Your task to perform on an android device: Open Yahoo.com Image 0: 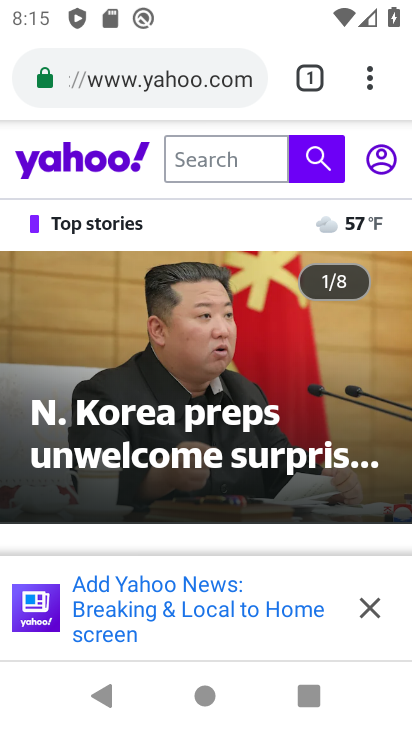
Step 0: task complete